Your task to perform on an android device: stop showing notifications on the lock screen Image 0: 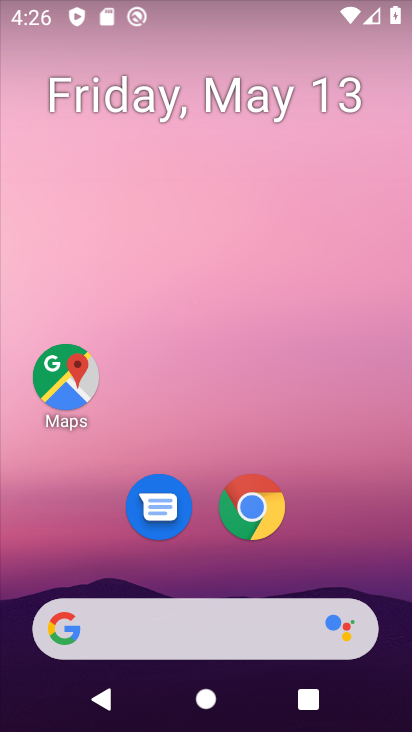
Step 0: drag from (337, 522) to (264, 95)
Your task to perform on an android device: stop showing notifications on the lock screen Image 1: 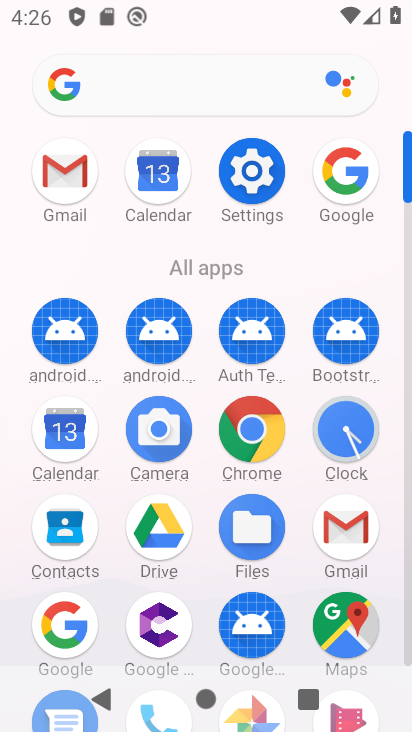
Step 1: click (264, 177)
Your task to perform on an android device: stop showing notifications on the lock screen Image 2: 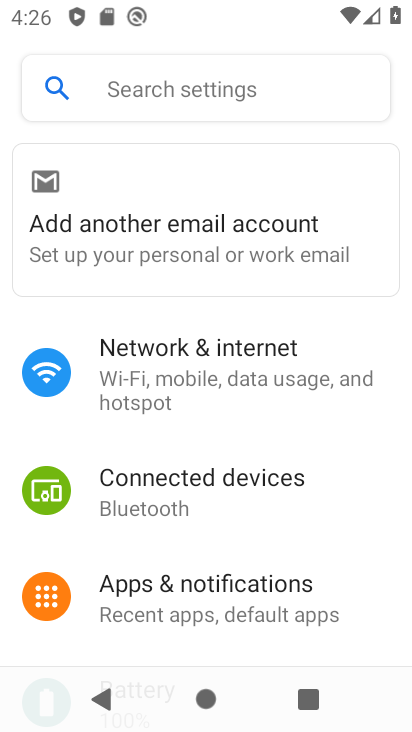
Step 2: drag from (225, 575) to (248, 261)
Your task to perform on an android device: stop showing notifications on the lock screen Image 3: 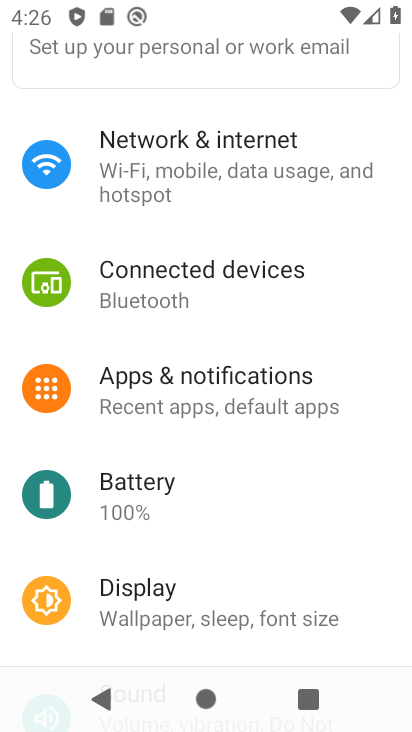
Step 3: click (224, 369)
Your task to perform on an android device: stop showing notifications on the lock screen Image 4: 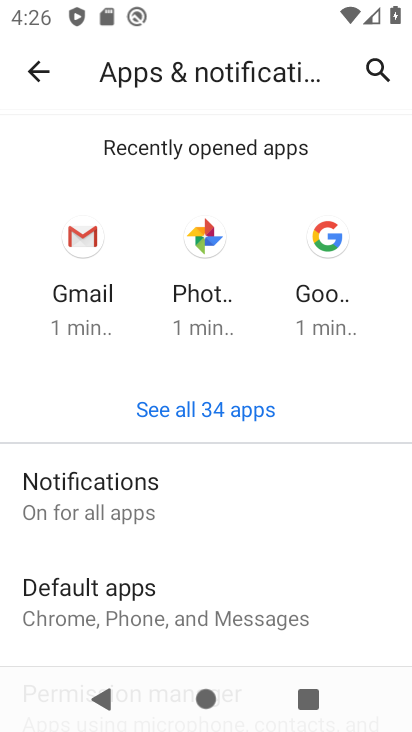
Step 4: click (151, 503)
Your task to perform on an android device: stop showing notifications on the lock screen Image 5: 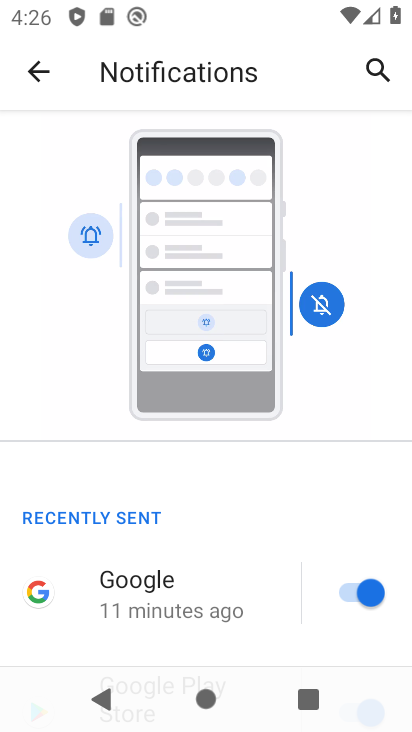
Step 5: drag from (240, 591) to (225, 238)
Your task to perform on an android device: stop showing notifications on the lock screen Image 6: 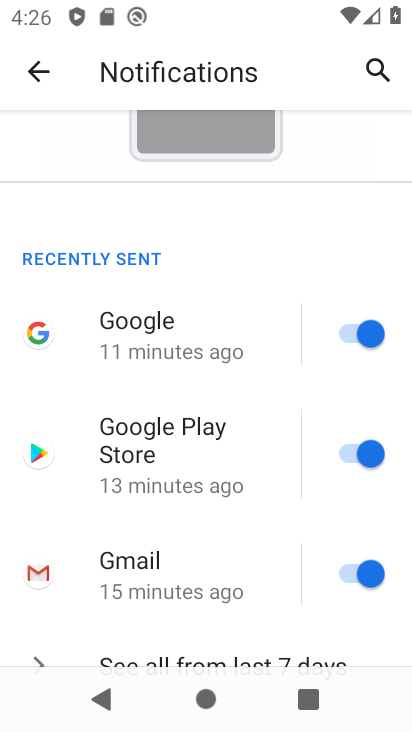
Step 6: drag from (193, 588) to (237, 207)
Your task to perform on an android device: stop showing notifications on the lock screen Image 7: 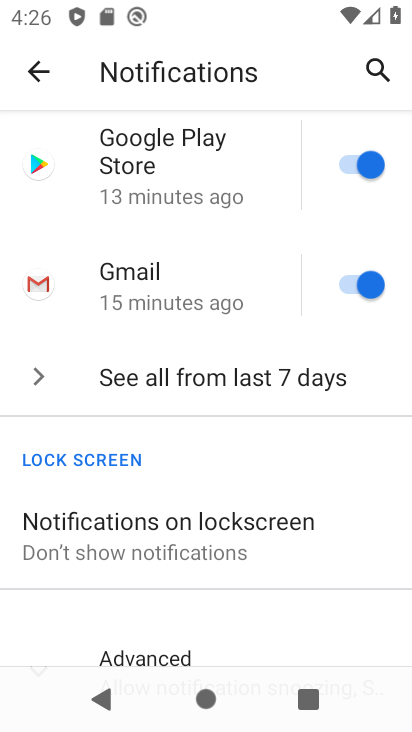
Step 7: click (192, 542)
Your task to perform on an android device: stop showing notifications on the lock screen Image 8: 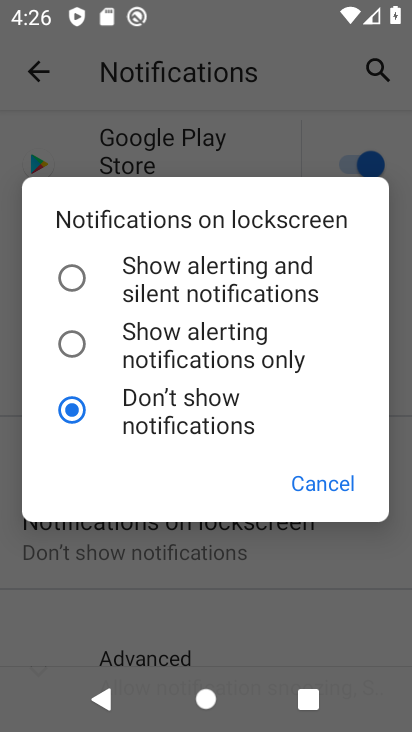
Step 8: task complete